Your task to perform on an android device: open app "VLC for Android" (install if not already installed) Image 0: 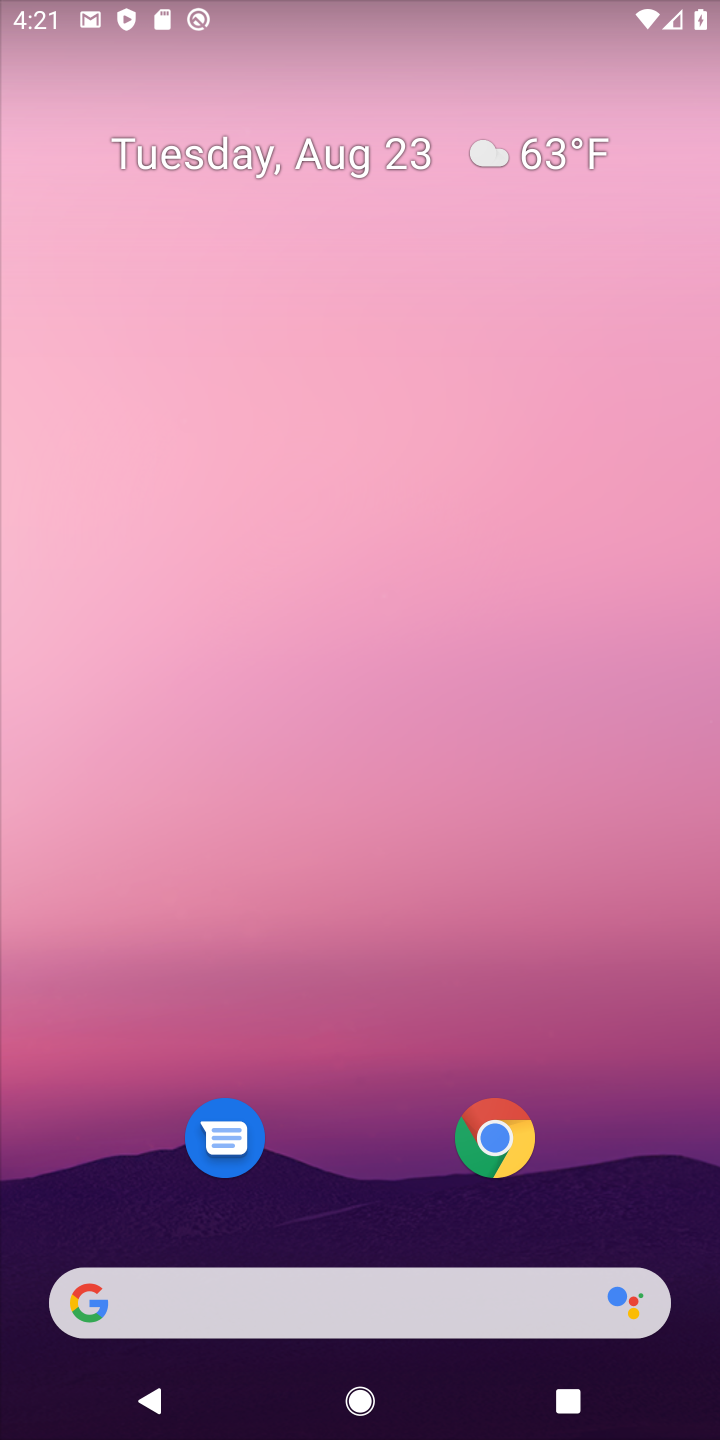
Step 0: drag from (344, 1286) to (417, 135)
Your task to perform on an android device: open app "VLC for Android" (install if not already installed) Image 1: 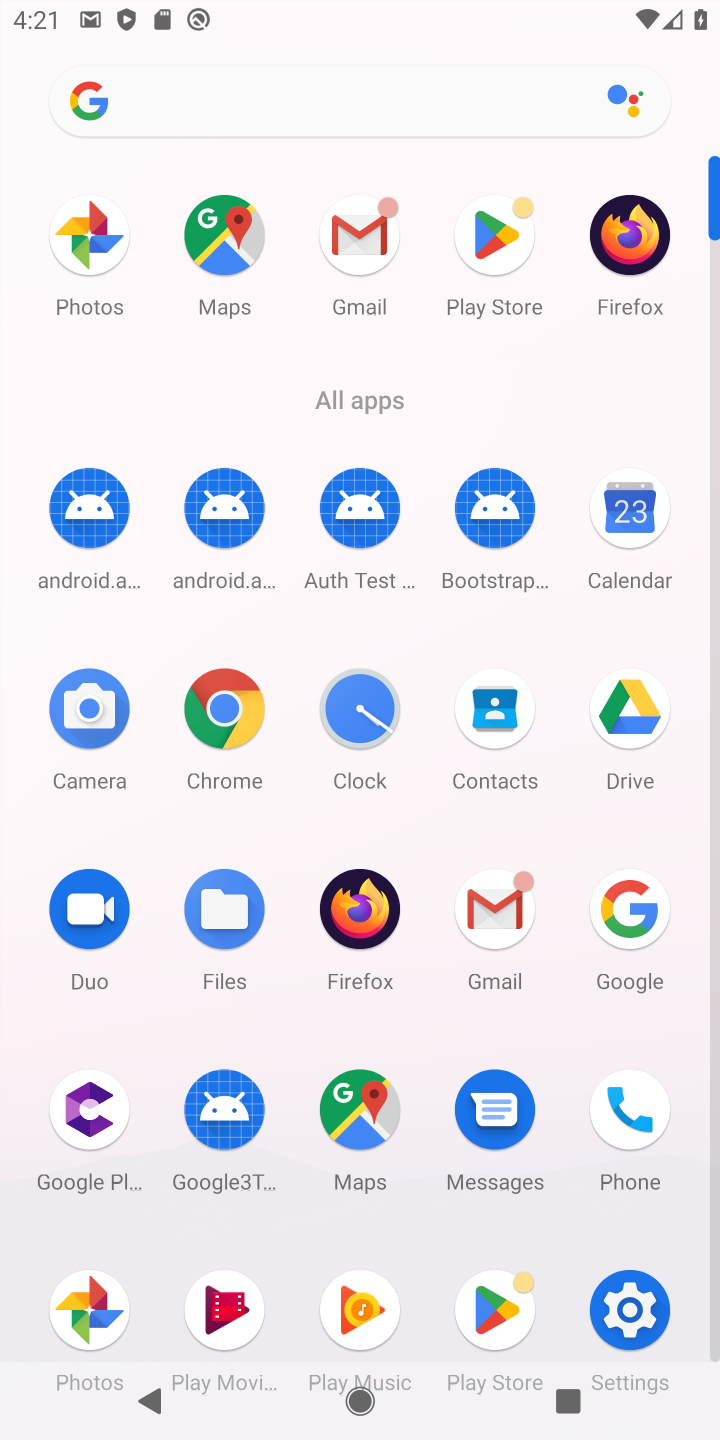
Step 1: click (482, 1314)
Your task to perform on an android device: open app "VLC for Android" (install if not already installed) Image 2: 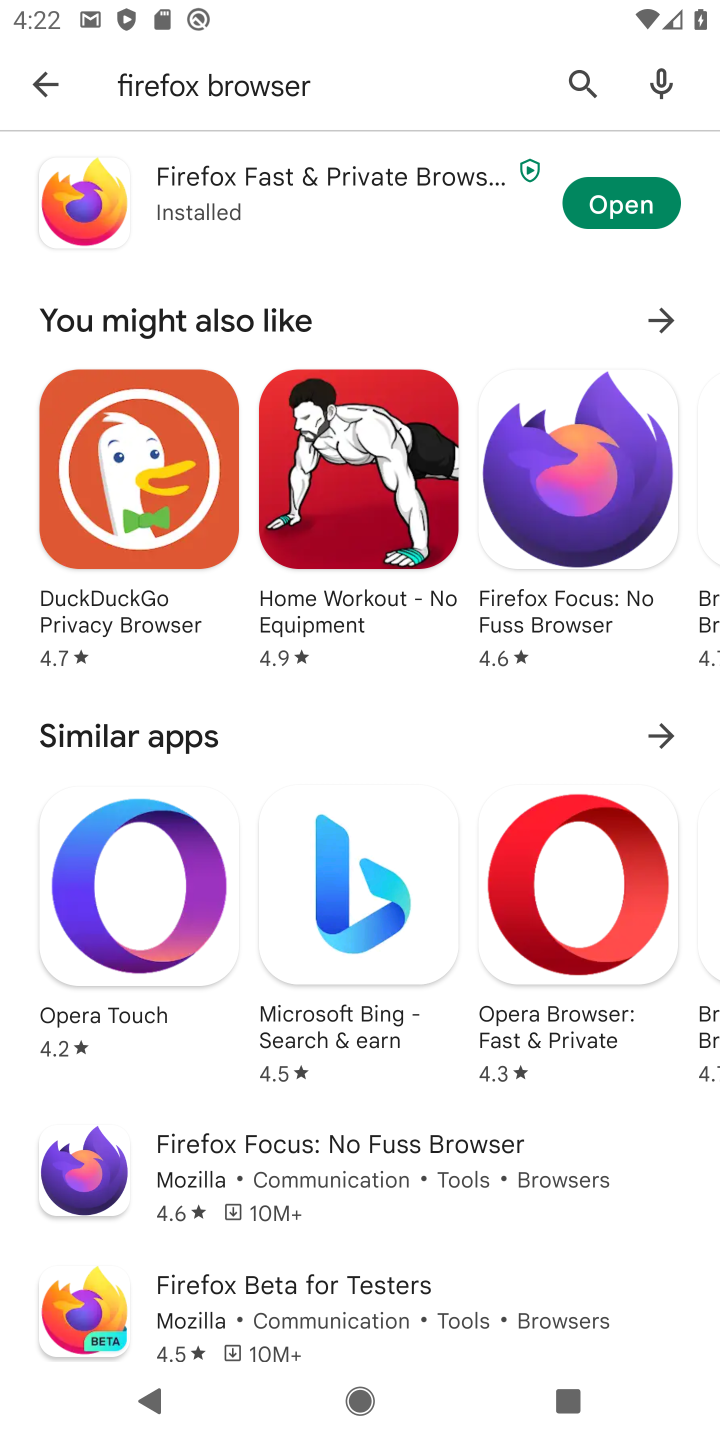
Step 2: click (581, 86)
Your task to perform on an android device: open app "VLC for Android" (install if not already installed) Image 3: 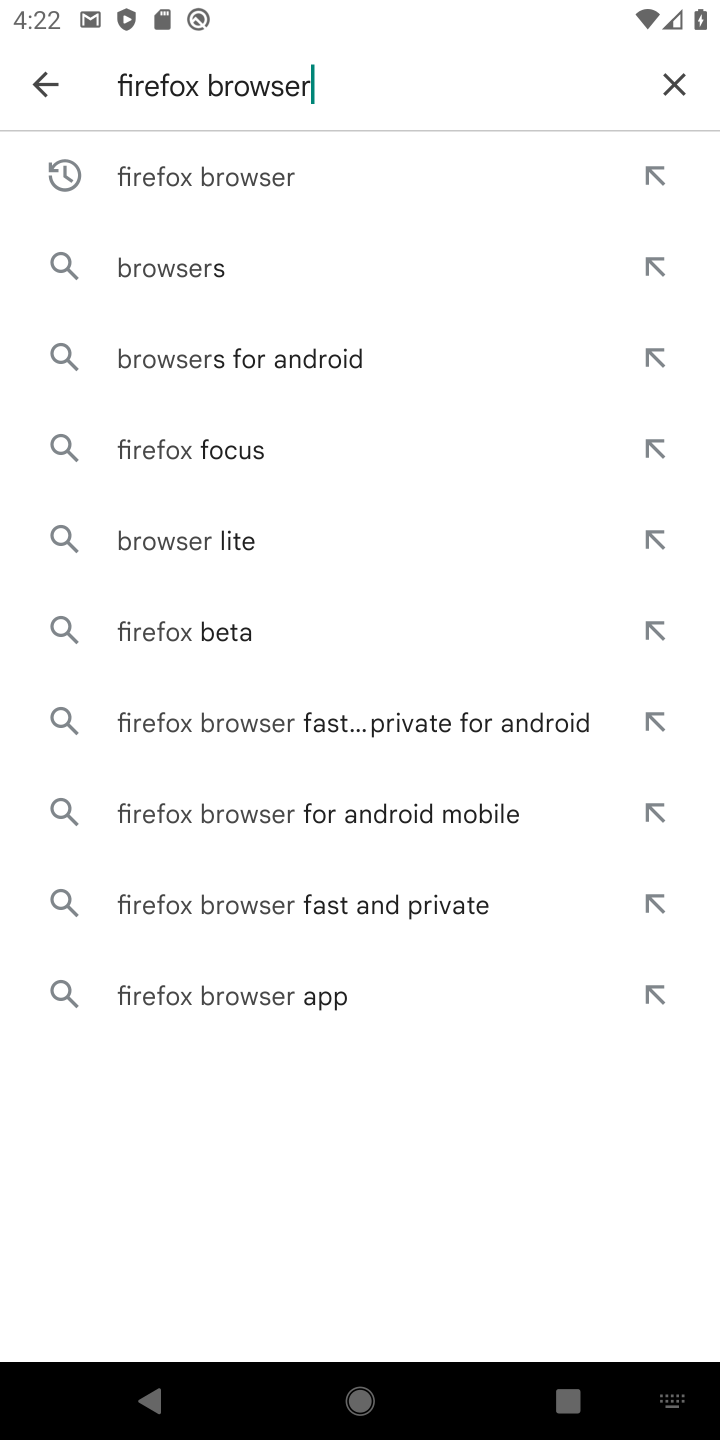
Step 3: click (668, 81)
Your task to perform on an android device: open app "VLC for Android" (install if not already installed) Image 4: 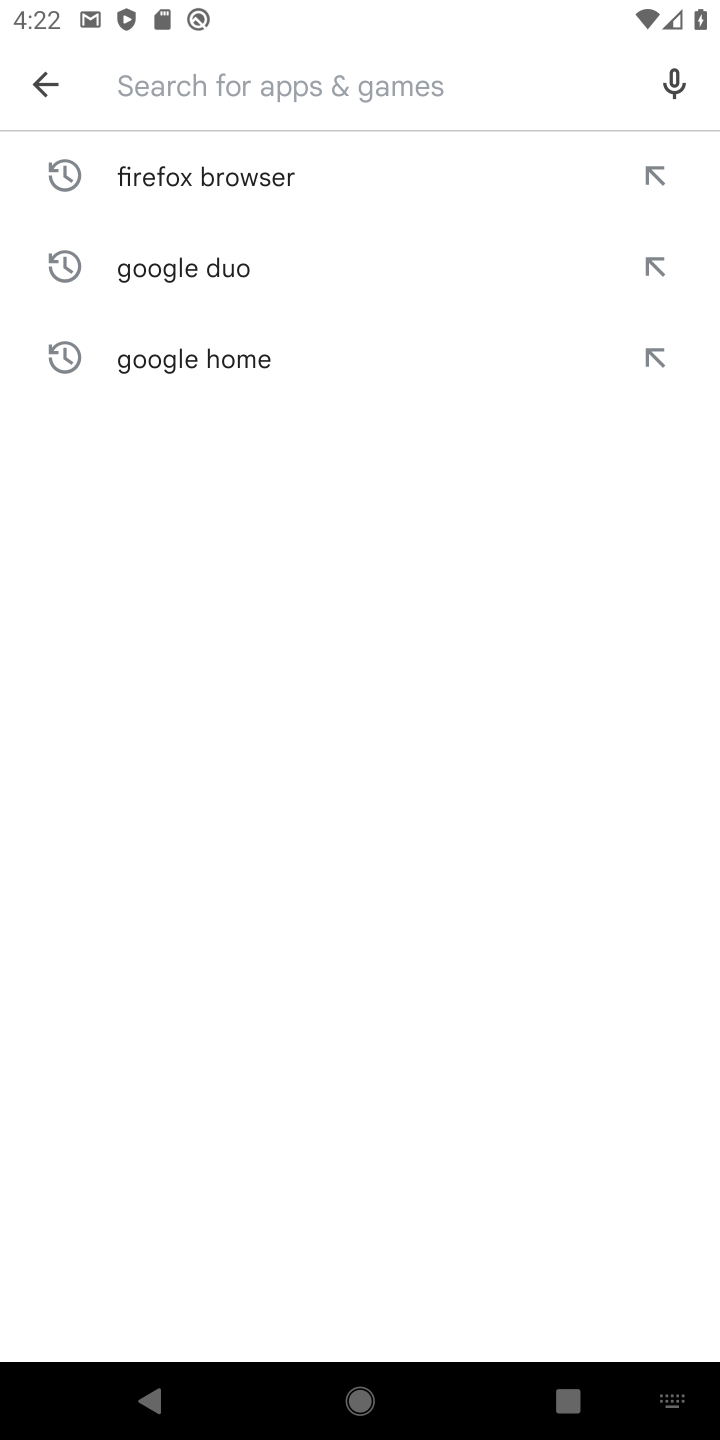
Step 4: type "VLC for Android"
Your task to perform on an android device: open app "VLC for Android" (install if not already installed) Image 5: 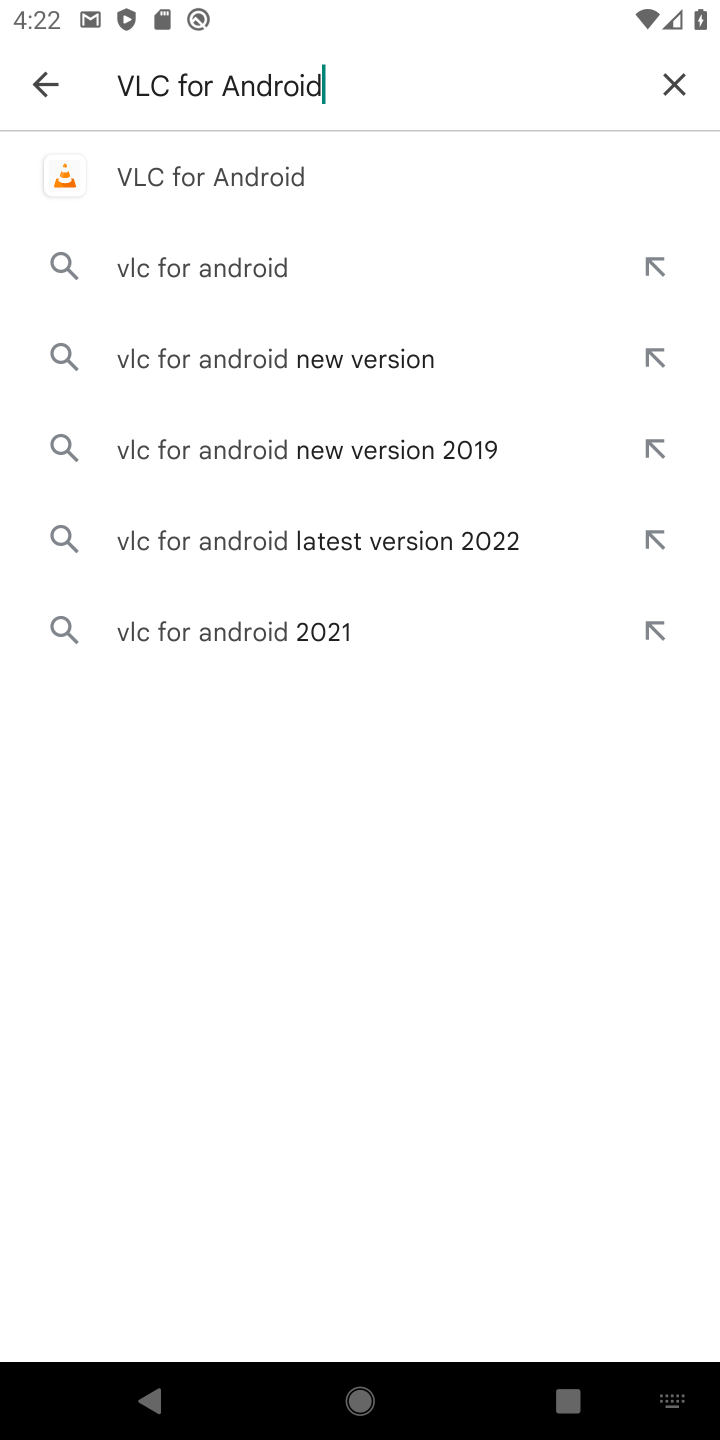
Step 5: click (193, 184)
Your task to perform on an android device: open app "VLC for Android" (install if not already installed) Image 6: 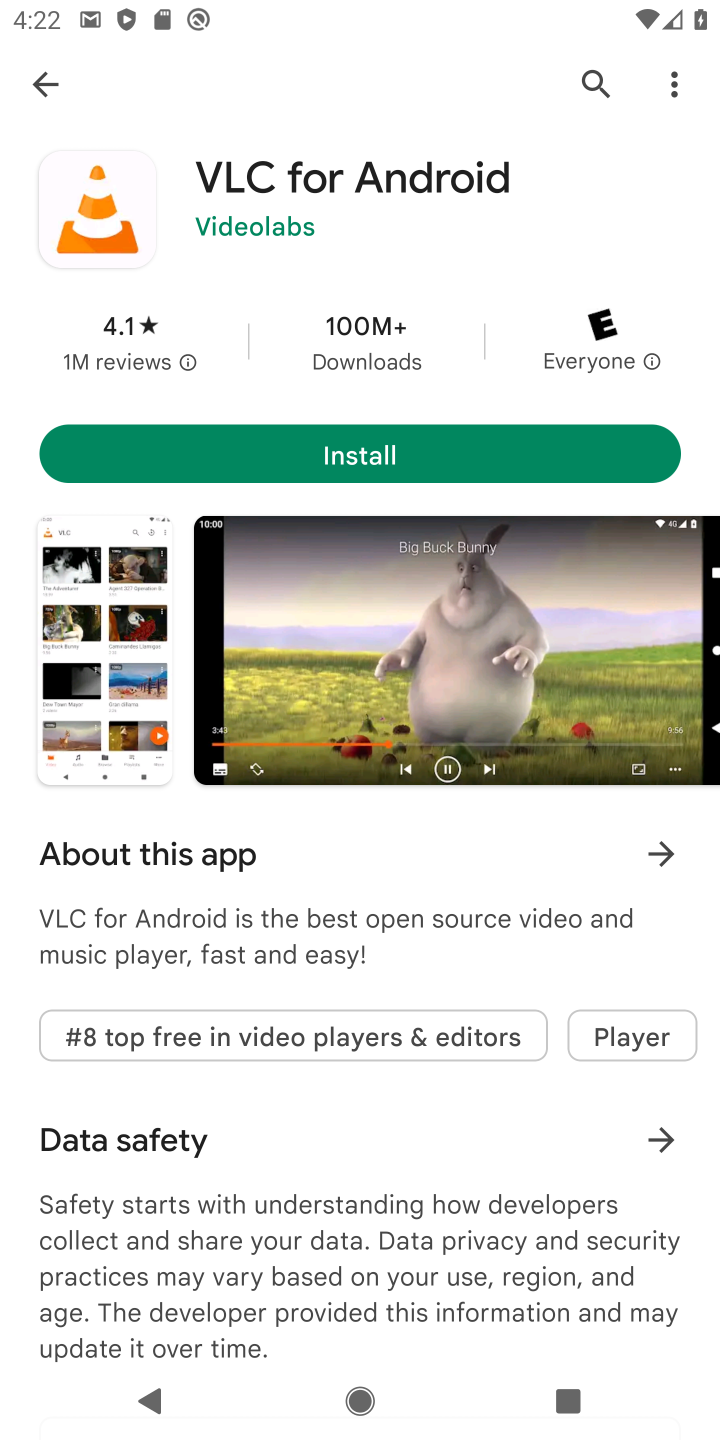
Step 6: click (365, 459)
Your task to perform on an android device: open app "VLC for Android" (install if not already installed) Image 7: 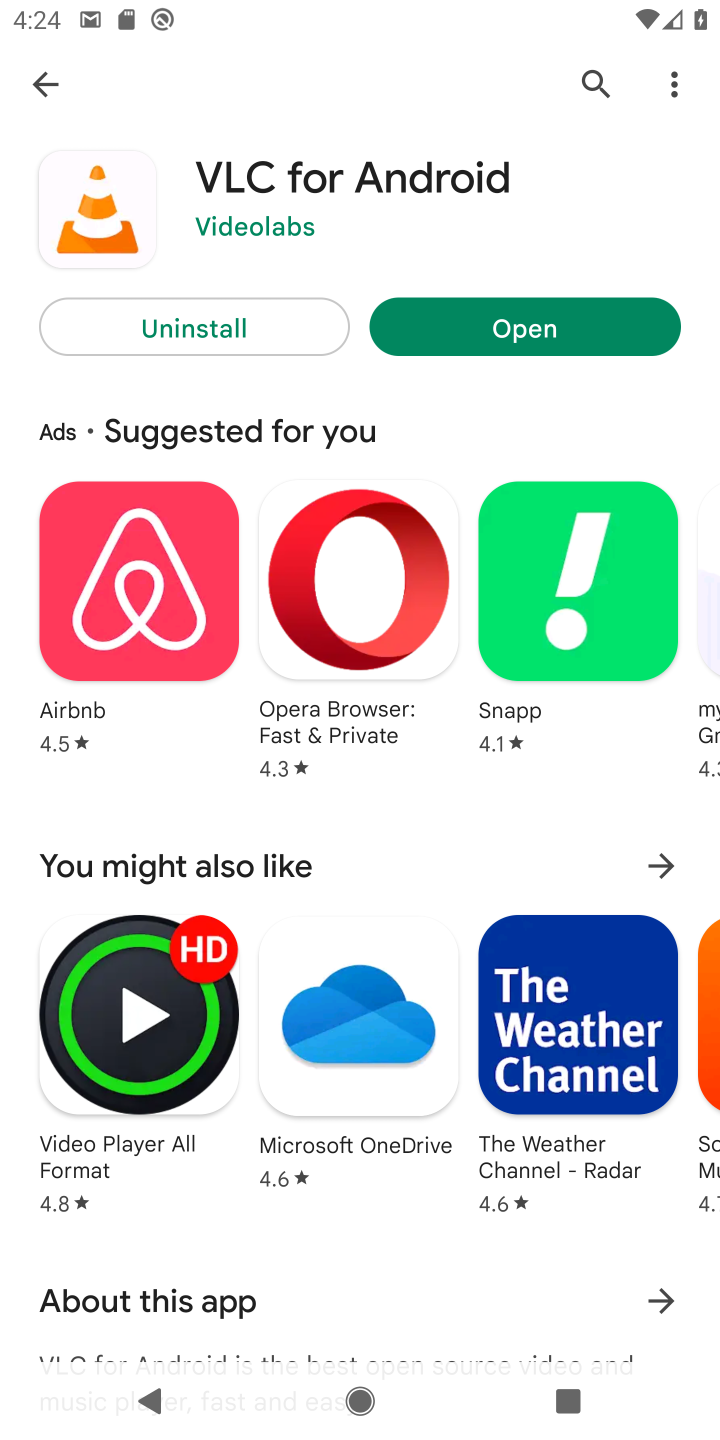
Step 7: click (536, 334)
Your task to perform on an android device: open app "VLC for Android" (install if not already installed) Image 8: 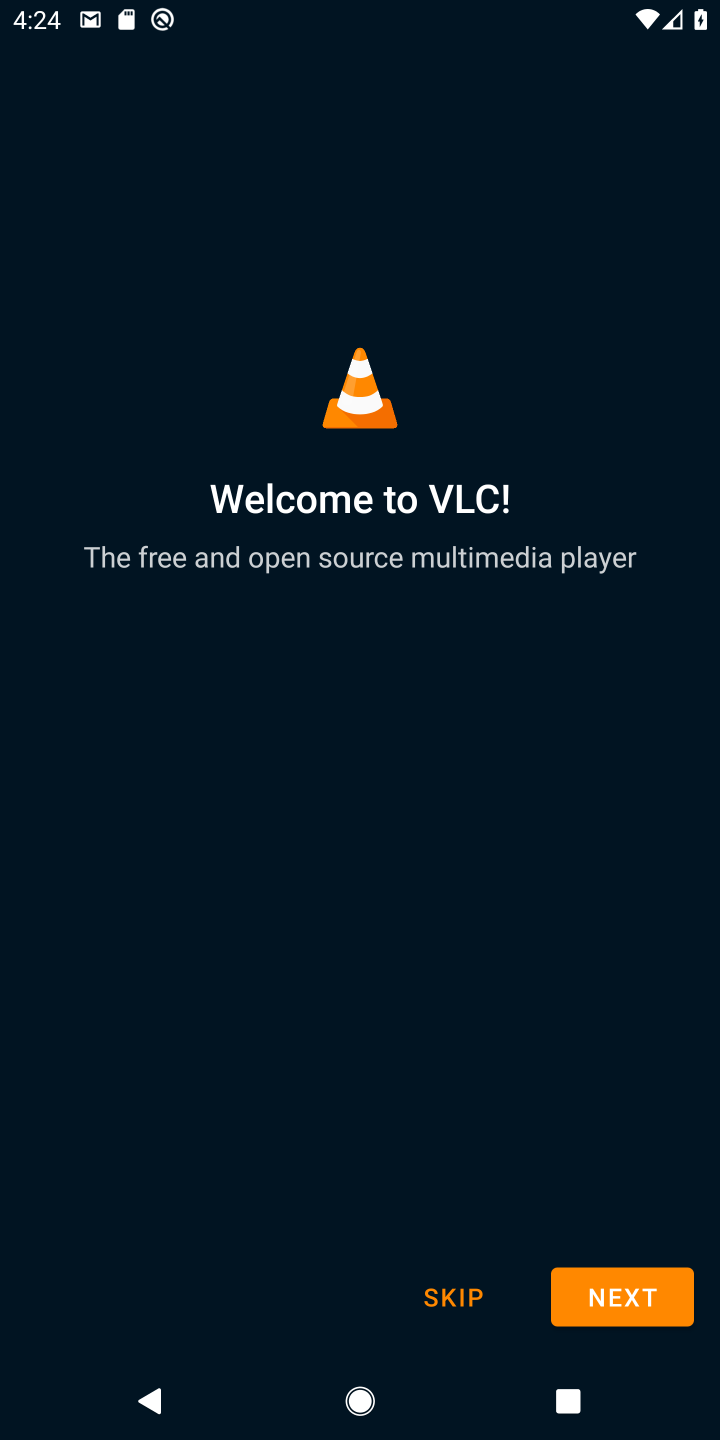
Step 8: task complete